Your task to perform on an android device: show emergency info Image 0: 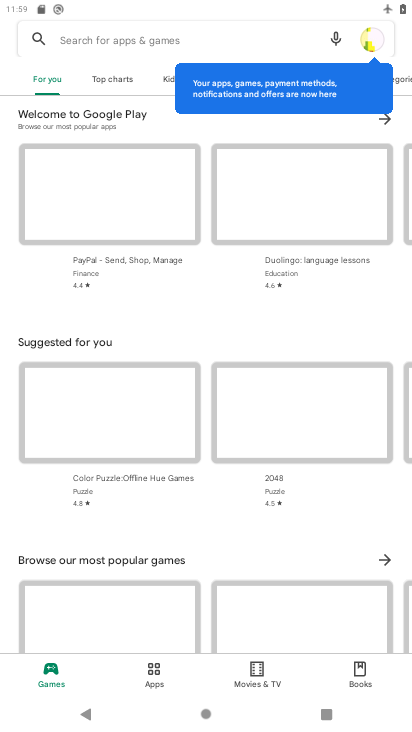
Step 0: press home button
Your task to perform on an android device: show emergency info Image 1: 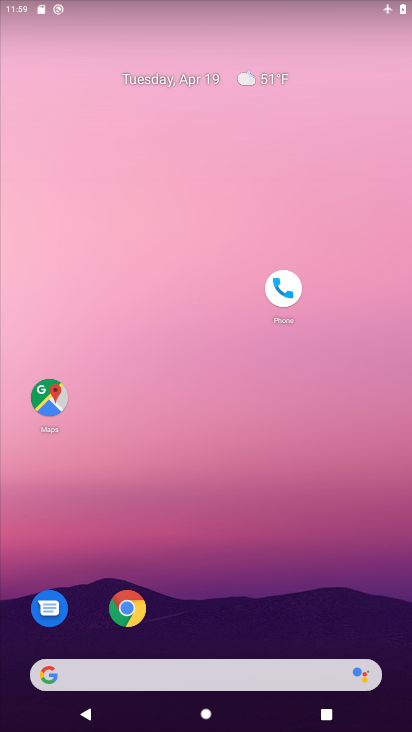
Step 1: drag from (189, 654) to (261, 191)
Your task to perform on an android device: show emergency info Image 2: 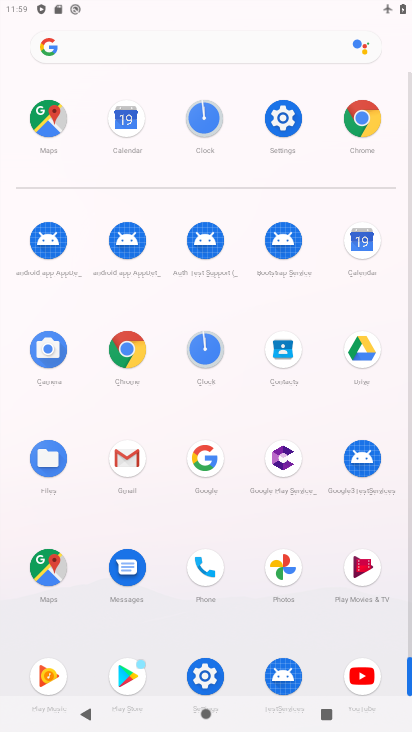
Step 2: click (205, 681)
Your task to perform on an android device: show emergency info Image 3: 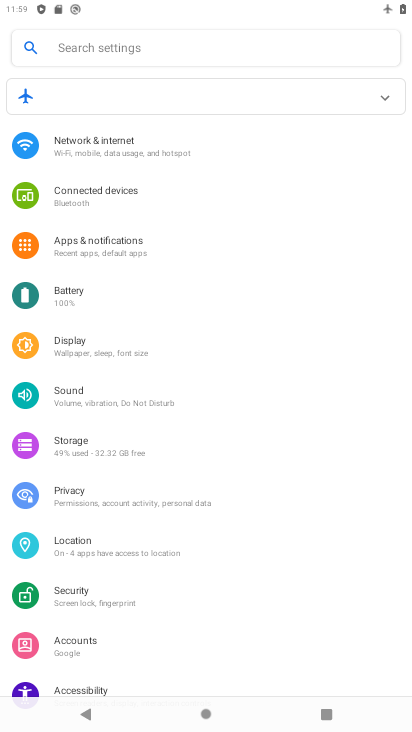
Step 3: drag from (95, 646) to (175, 199)
Your task to perform on an android device: show emergency info Image 4: 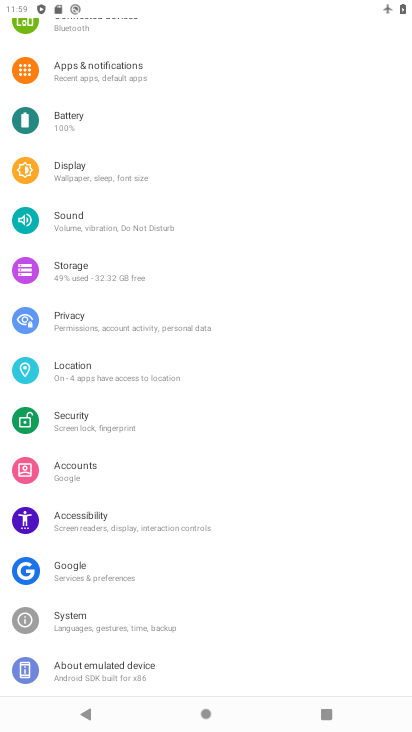
Step 4: click (86, 662)
Your task to perform on an android device: show emergency info Image 5: 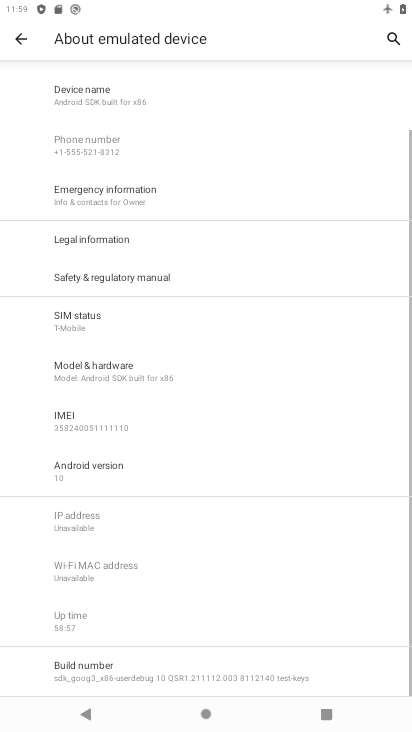
Step 5: click (102, 195)
Your task to perform on an android device: show emergency info Image 6: 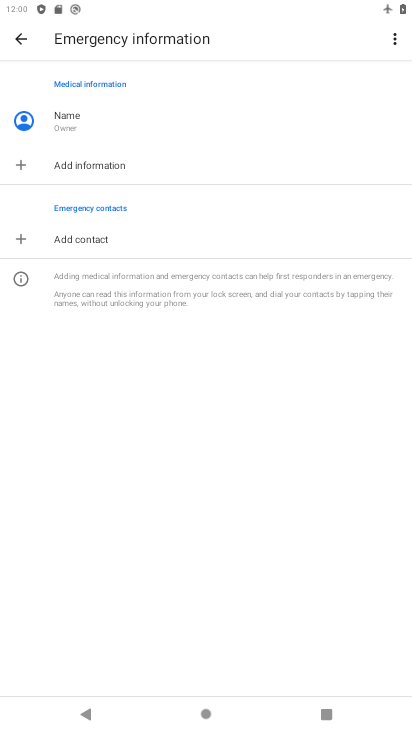
Step 6: task complete